Your task to perform on an android device: open the mobile data screen to see how much data has been used Image 0: 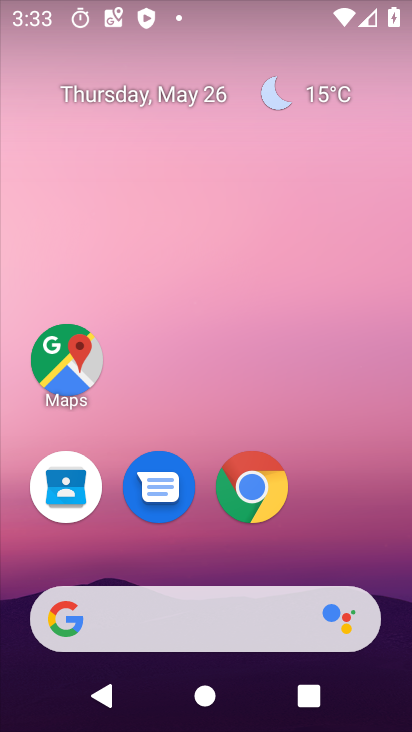
Step 0: drag from (195, 557) to (220, 205)
Your task to perform on an android device: open the mobile data screen to see how much data has been used Image 1: 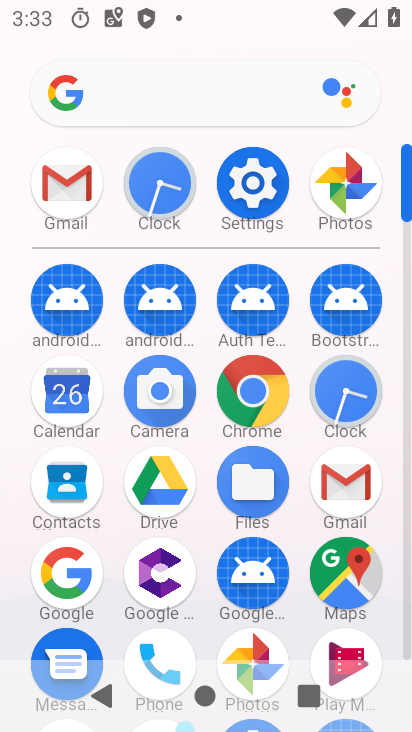
Step 1: click (245, 190)
Your task to perform on an android device: open the mobile data screen to see how much data has been used Image 2: 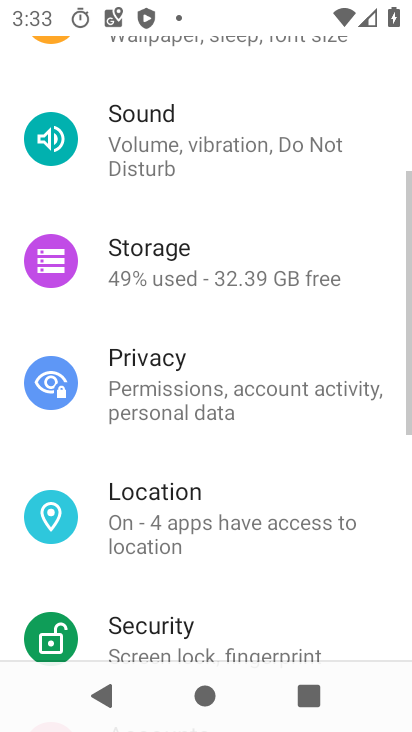
Step 2: drag from (225, 223) to (225, 546)
Your task to perform on an android device: open the mobile data screen to see how much data has been used Image 3: 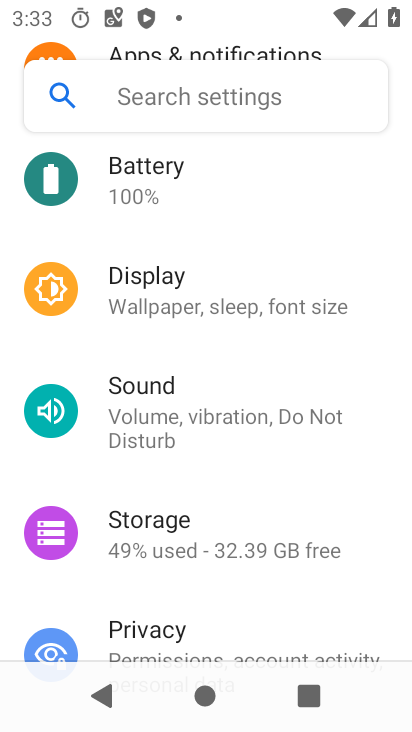
Step 3: drag from (201, 195) to (202, 462)
Your task to perform on an android device: open the mobile data screen to see how much data has been used Image 4: 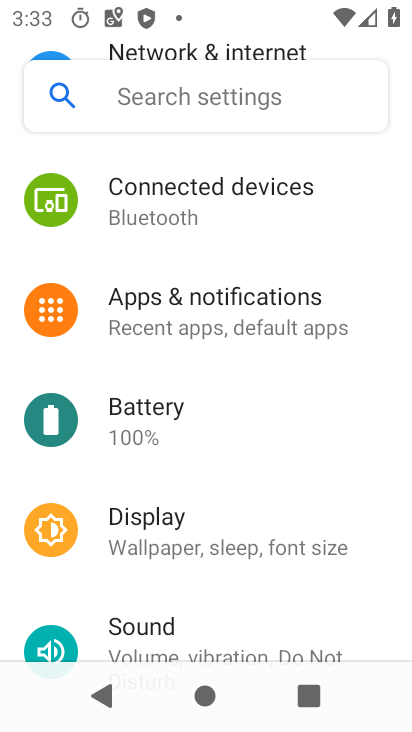
Step 4: drag from (205, 187) to (219, 488)
Your task to perform on an android device: open the mobile data screen to see how much data has been used Image 5: 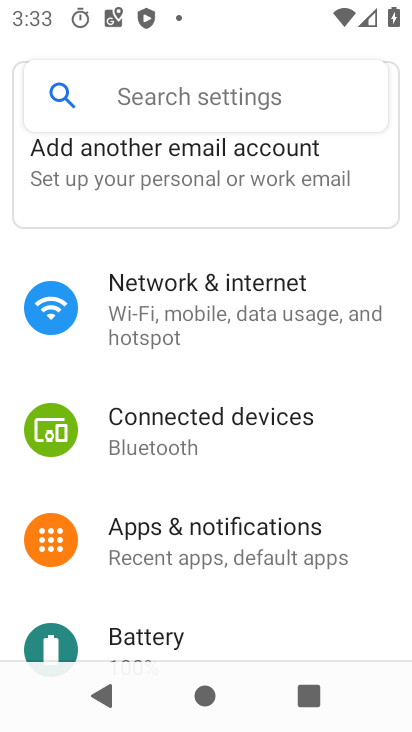
Step 5: click (202, 313)
Your task to perform on an android device: open the mobile data screen to see how much data has been used Image 6: 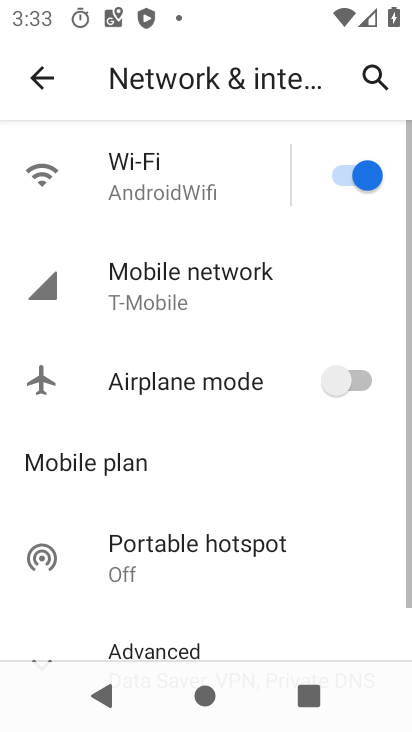
Step 6: click (186, 291)
Your task to perform on an android device: open the mobile data screen to see how much data has been used Image 7: 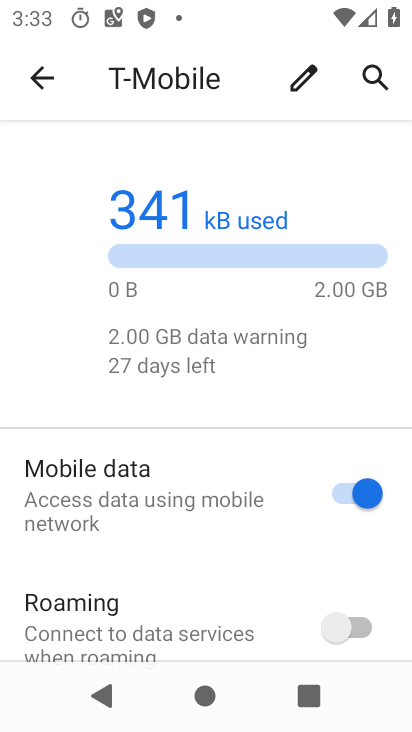
Step 7: drag from (202, 559) to (223, 301)
Your task to perform on an android device: open the mobile data screen to see how much data has been used Image 8: 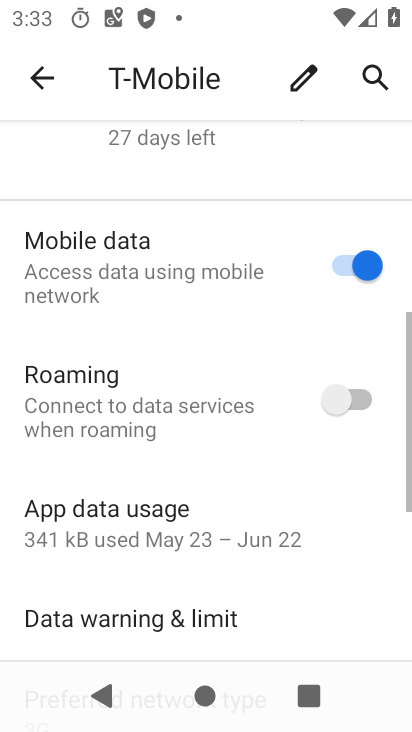
Step 8: click (199, 501)
Your task to perform on an android device: open the mobile data screen to see how much data has been used Image 9: 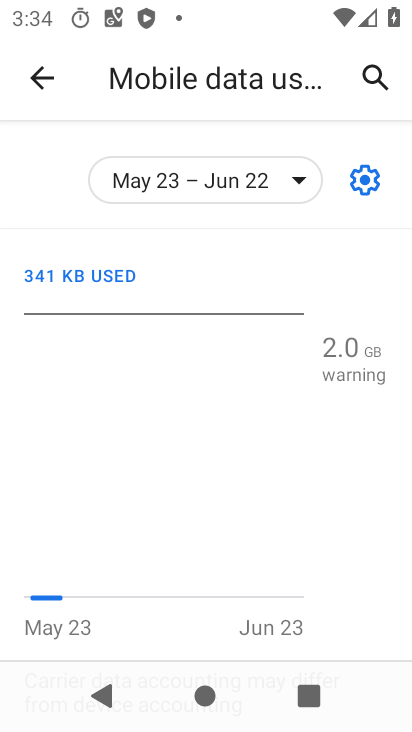
Step 9: task complete